Your task to perform on an android device: delete location history Image 0: 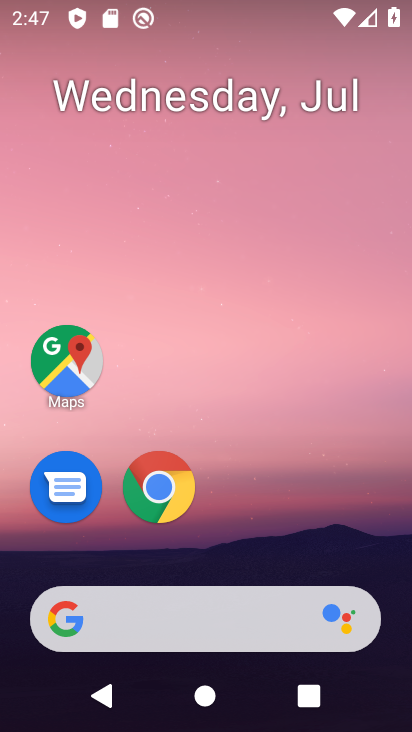
Step 0: click (59, 368)
Your task to perform on an android device: delete location history Image 1: 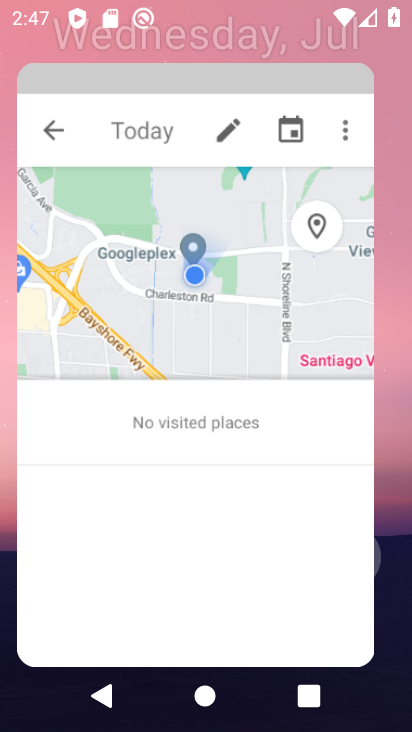
Step 1: click (74, 379)
Your task to perform on an android device: delete location history Image 2: 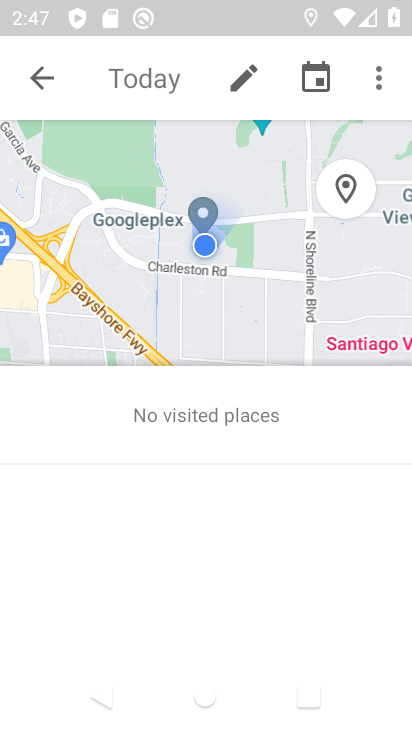
Step 2: click (378, 96)
Your task to perform on an android device: delete location history Image 3: 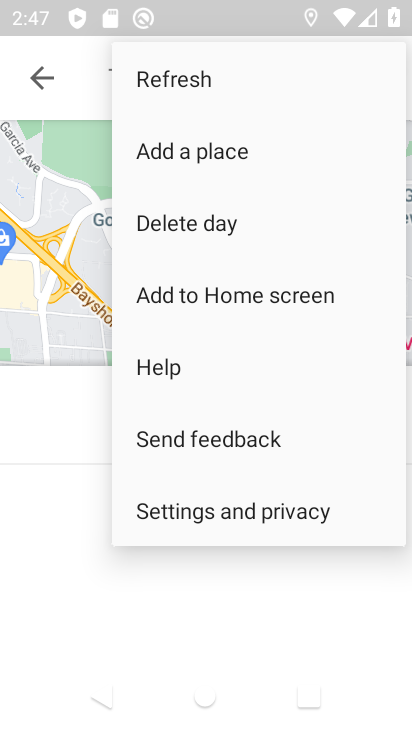
Step 3: click (308, 510)
Your task to perform on an android device: delete location history Image 4: 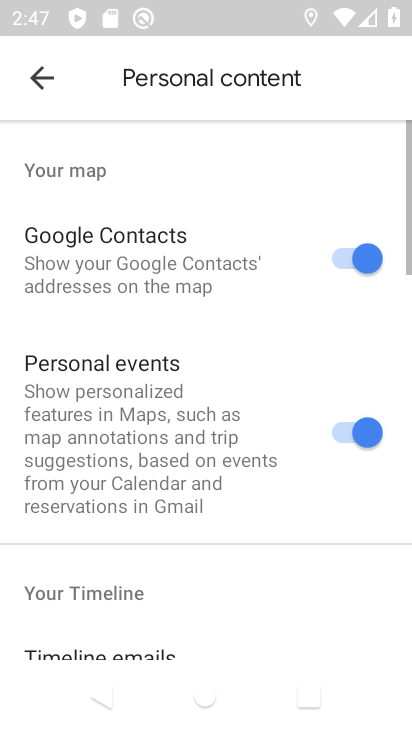
Step 4: drag from (241, 603) to (294, 163)
Your task to perform on an android device: delete location history Image 5: 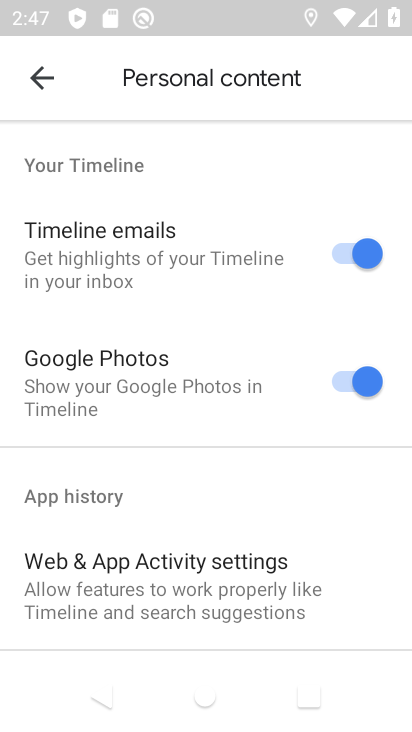
Step 5: drag from (291, 518) to (309, 183)
Your task to perform on an android device: delete location history Image 6: 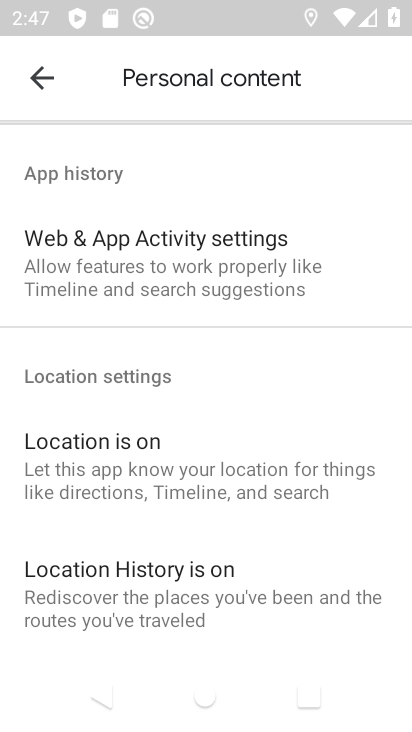
Step 6: drag from (324, 376) to (322, 210)
Your task to perform on an android device: delete location history Image 7: 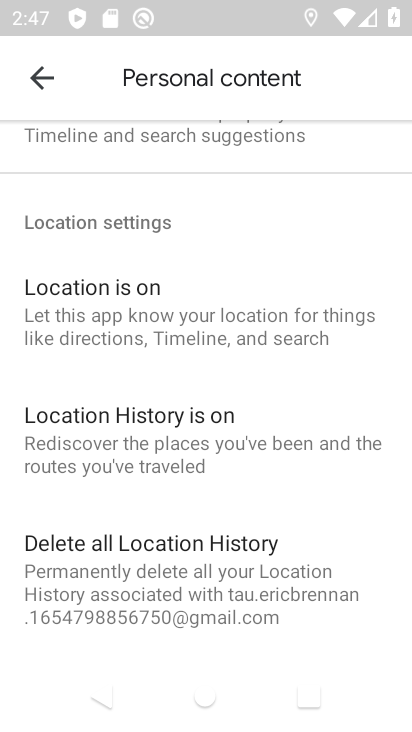
Step 7: click (288, 549)
Your task to perform on an android device: delete location history Image 8: 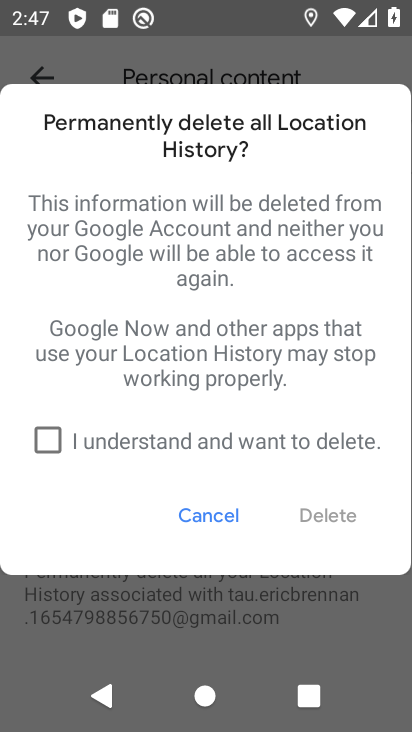
Step 8: click (265, 443)
Your task to perform on an android device: delete location history Image 9: 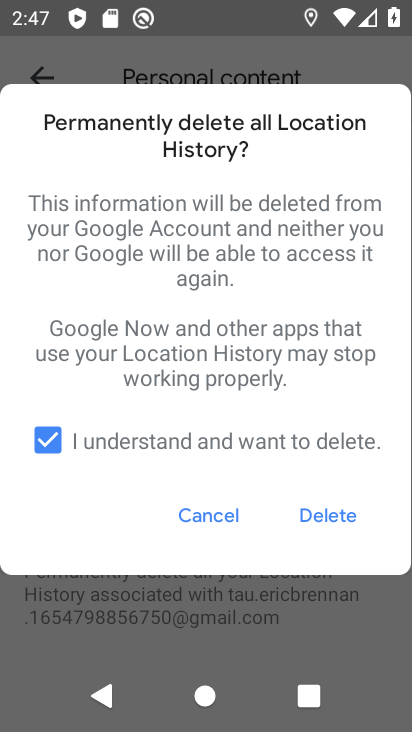
Step 9: click (343, 518)
Your task to perform on an android device: delete location history Image 10: 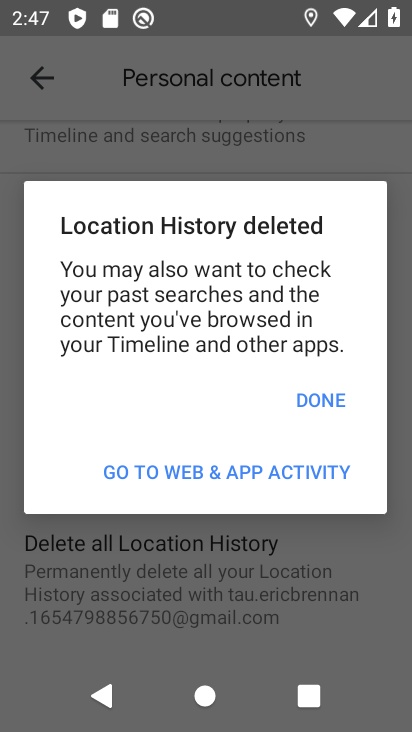
Step 10: click (328, 410)
Your task to perform on an android device: delete location history Image 11: 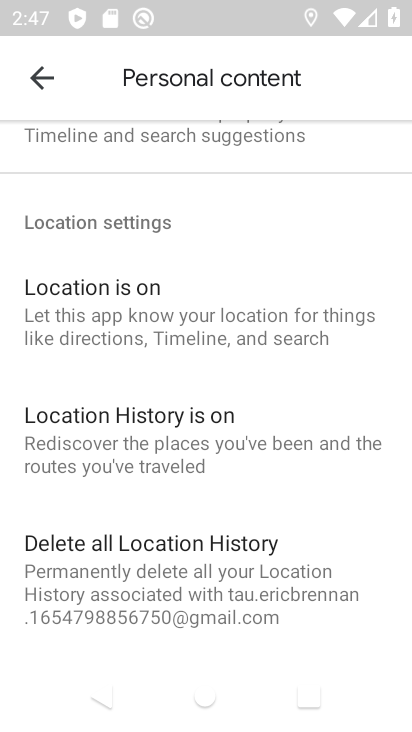
Step 11: task complete